Your task to perform on an android device: Open notification settings Image 0: 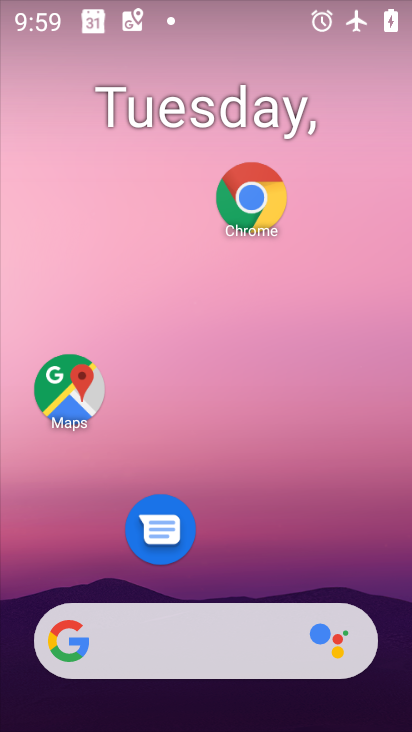
Step 0: drag from (294, 553) to (244, 12)
Your task to perform on an android device: Open notification settings Image 1: 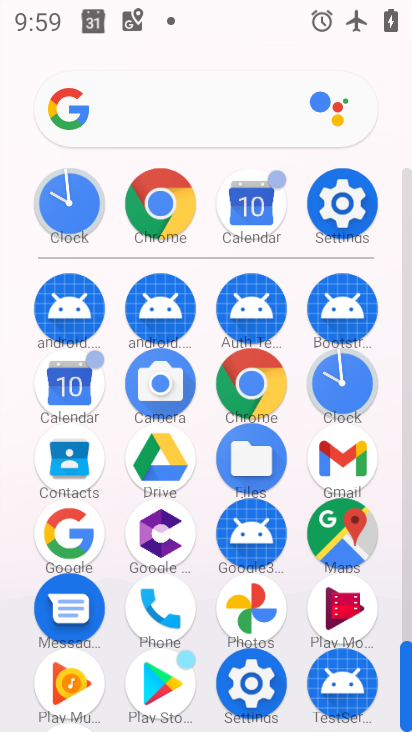
Step 1: click (340, 222)
Your task to perform on an android device: Open notification settings Image 2: 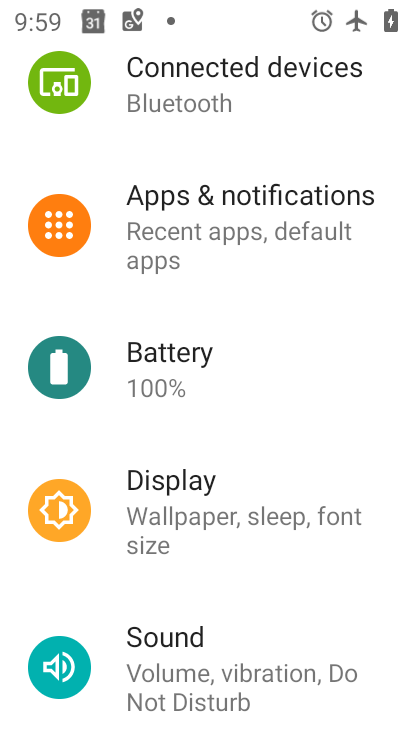
Step 2: click (309, 235)
Your task to perform on an android device: Open notification settings Image 3: 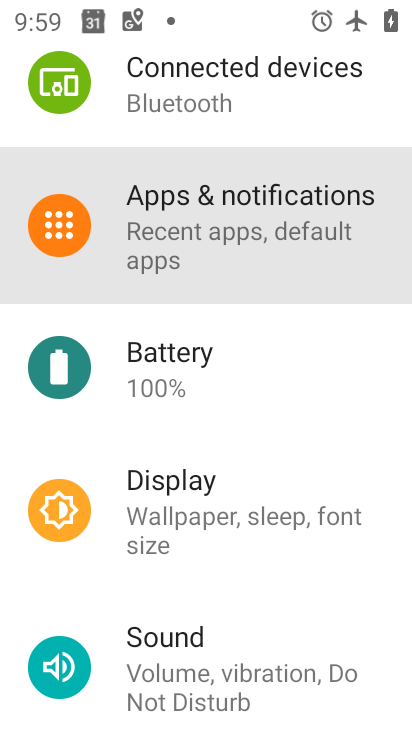
Step 3: task complete